Your task to perform on an android device: set default search engine in the chrome app Image 0: 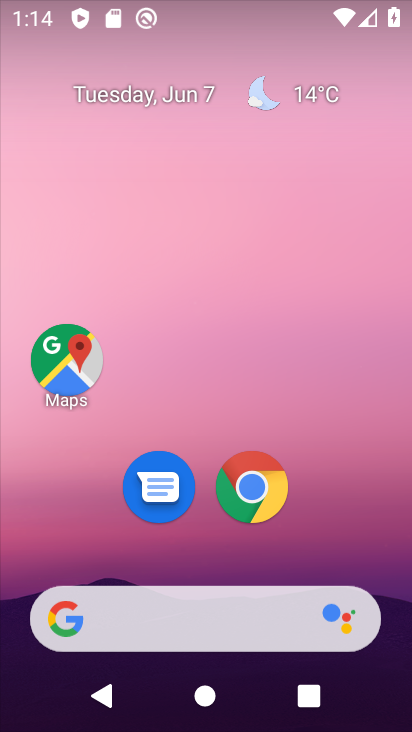
Step 0: click (249, 488)
Your task to perform on an android device: set default search engine in the chrome app Image 1: 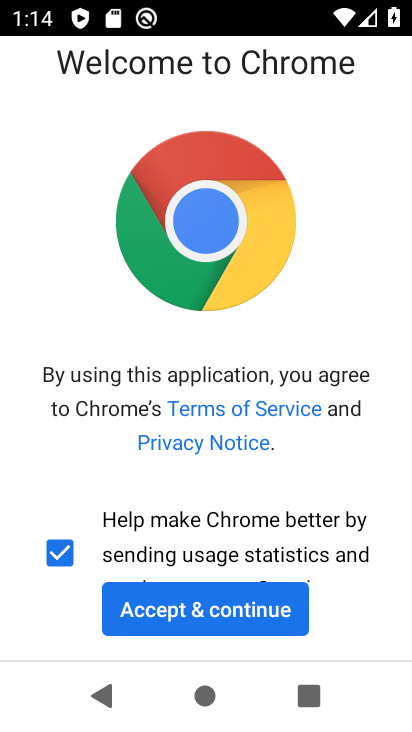
Step 1: click (214, 618)
Your task to perform on an android device: set default search engine in the chrome app Image 2: 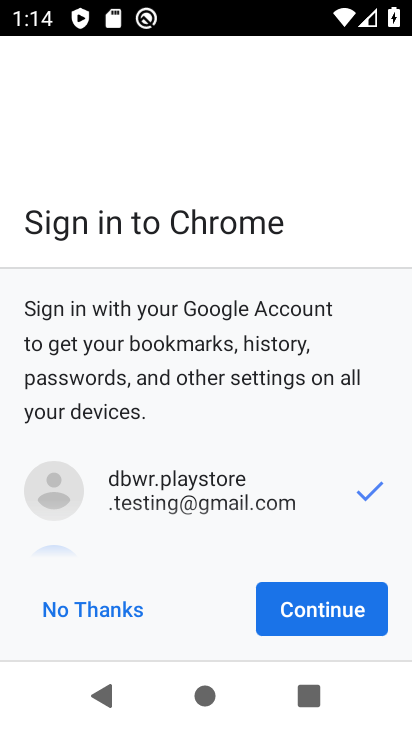
Step 2: click (332, 591)
Your task to perform on an android device: set default search engine in the chrome app Image 3: 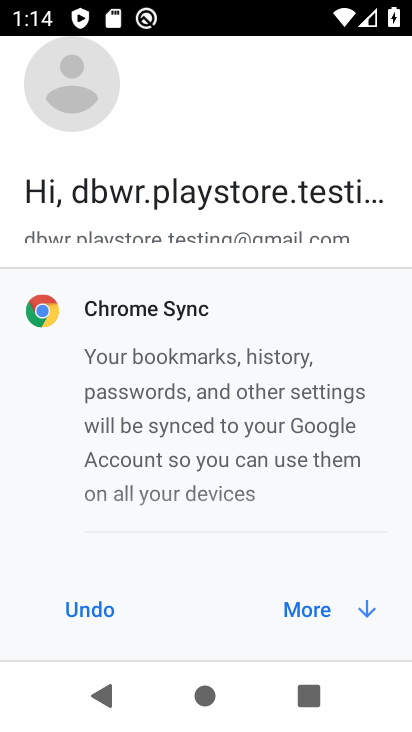
Step 3: click (332, 611)
Your task to perform on an android device: set default search engine in the chrome app Image 4: 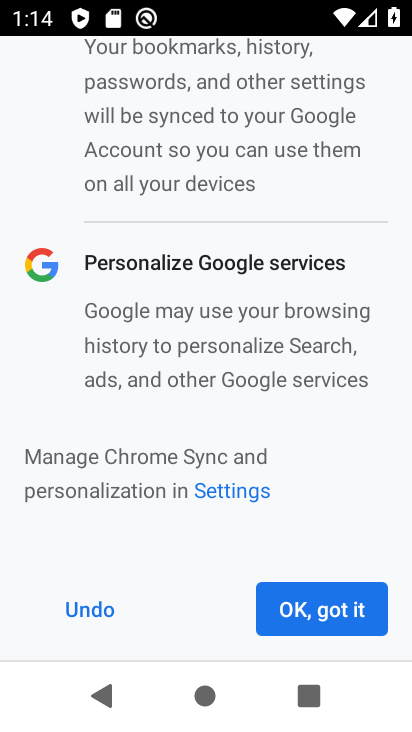
Step 4: click (332, 611)
Your task to perform on an android device: set default search engine in the chrome app Image 5: 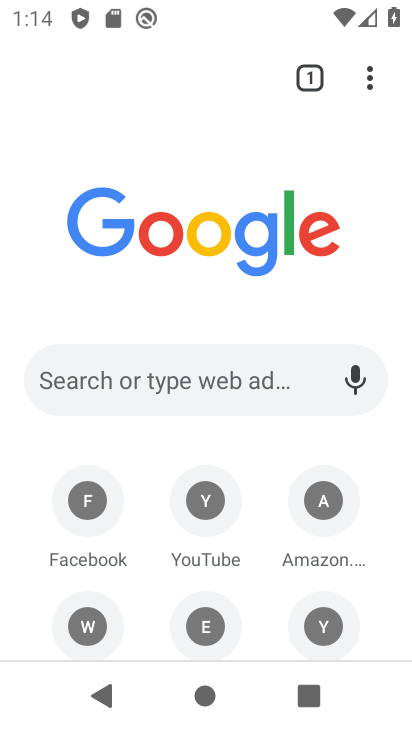
Step 5: click (373, 87)
Your task to perform on an android device: set default search engine in the chrome app Image 6: 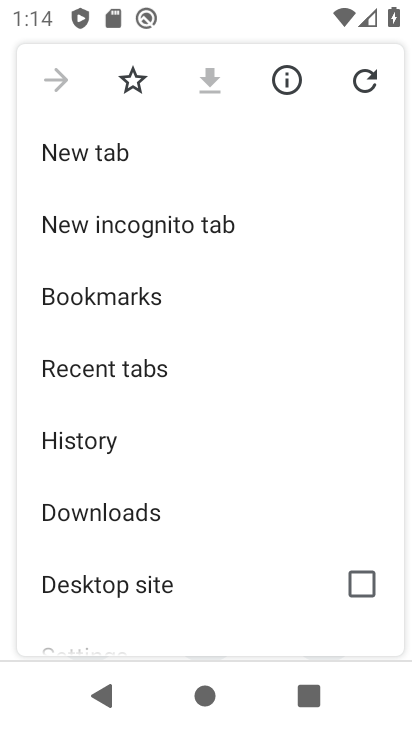
Step 6: drag from (168, 582) to (152, 118)
Your task to perform on an android device: set default search engine in the chrome app Image 7: 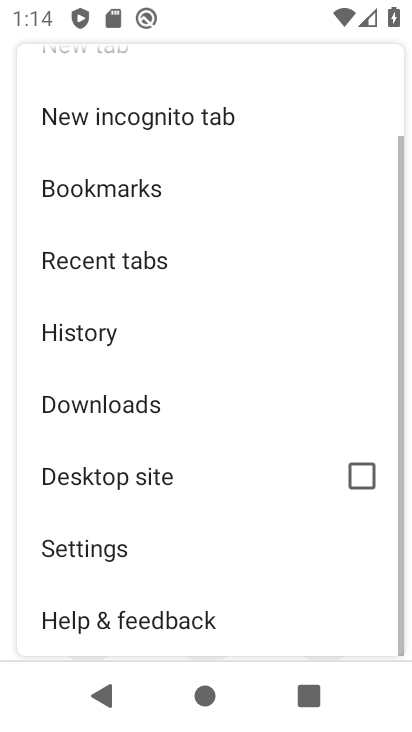
Step 7: click (84, 538)
Your task to perform on an android device: set default search engine in the chrome app Image 8: 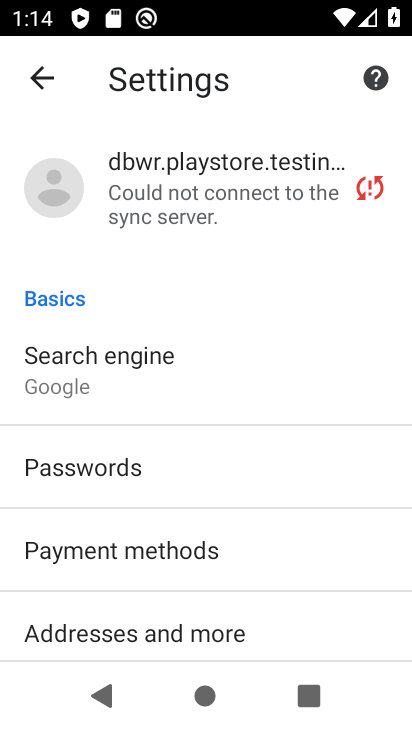
Step 8: click (134, 396)
Your task to perform on an android device: set default search engine in the chrome app Image 9: 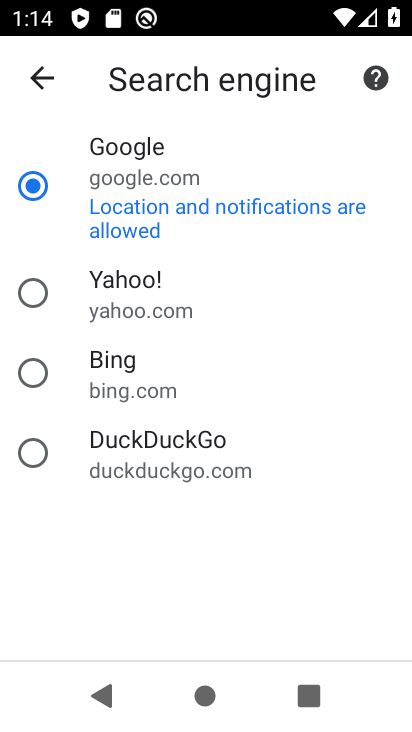
Step 9: click (25, 194)
Your task to perform on an android device: set default search engine in the chrome app Image 10: 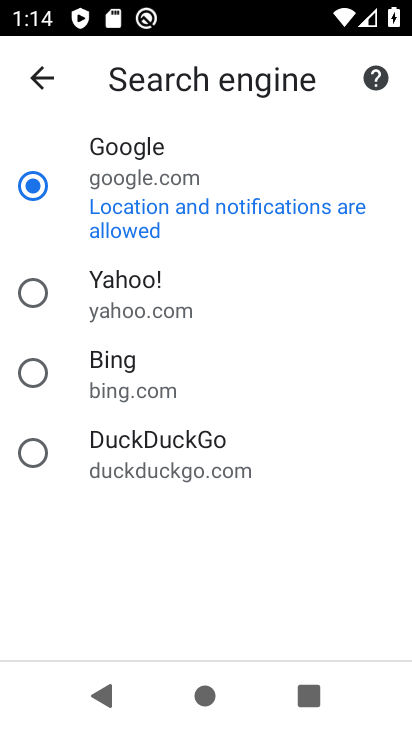
Step 10: task complete